Your task to perform on an android device: Go to Google maps Image 0: 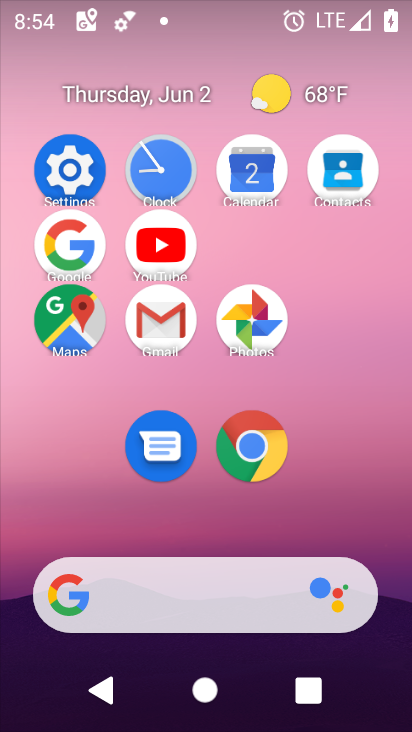
Step 0: click (71, 319)
Your task to perform on an android device: Go to Google maps Image 1: 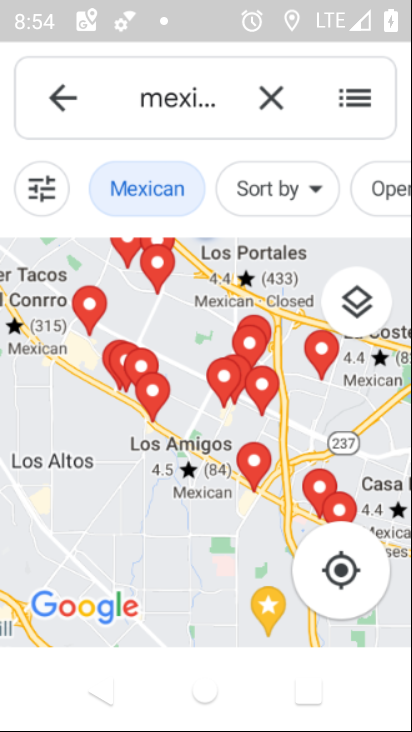
Step 1: task complete